Your task to perform on an android device: Search for sushi restaurants on Maps Image 0: 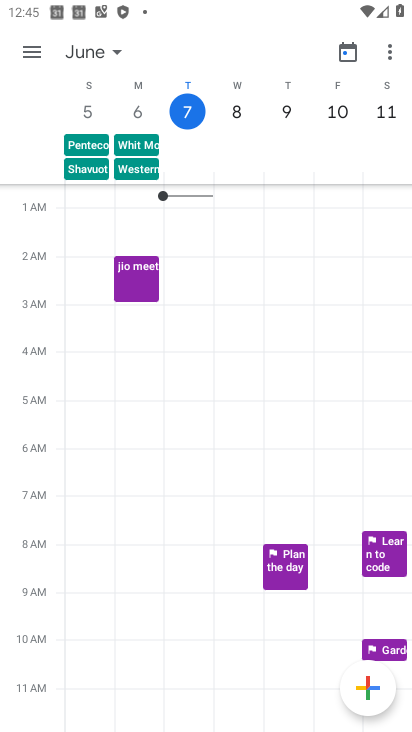
Step 0: press home button
Your task to perform on an android device: Search for sushi restaurants on Maps Image 1: 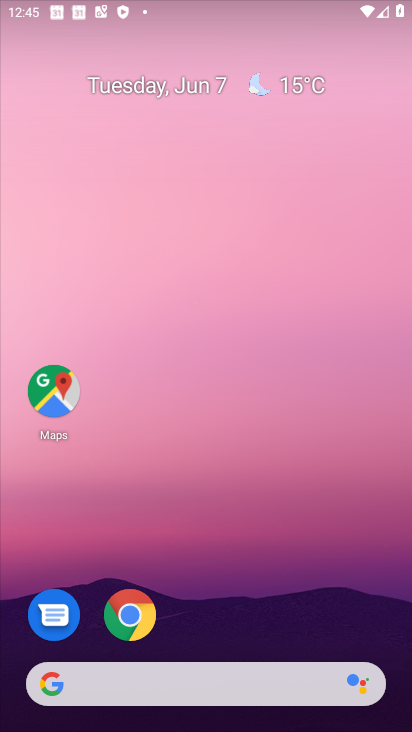
Step 1: drag from (196, 646) to (170, 63)
Your task to perform on an android device: Search for sushi restaurants on Maps Image 2: 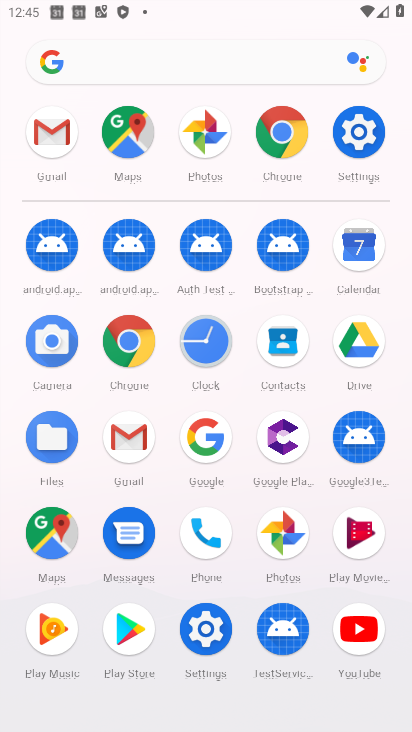
Step 2: click (149, 145)
Your task to perform on an android device: Search for sushi restaurants on Maps Image 3: 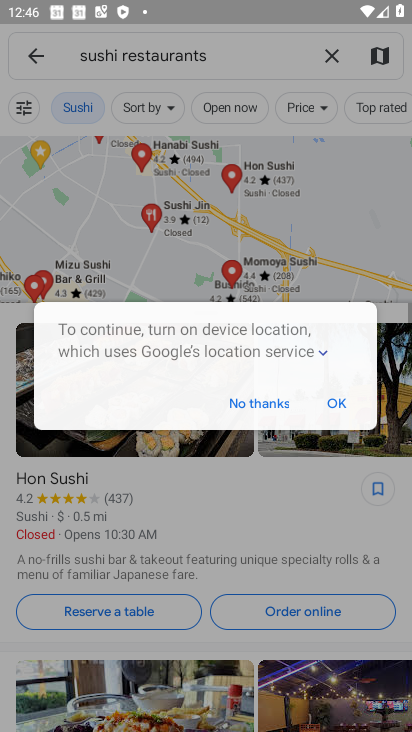
Step 3: task complete